Your task to perform on an android device: move an email to a new category in the gmail app Image 0: 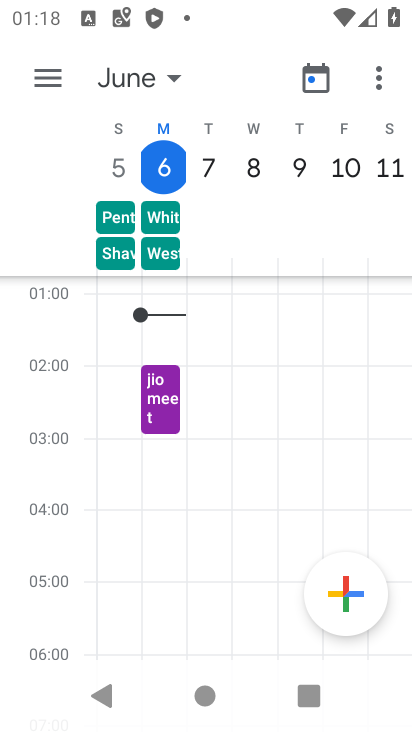
Step 0: press home button
Your task to perform on an android device: move an email to a new category in the gmail app Image 1: 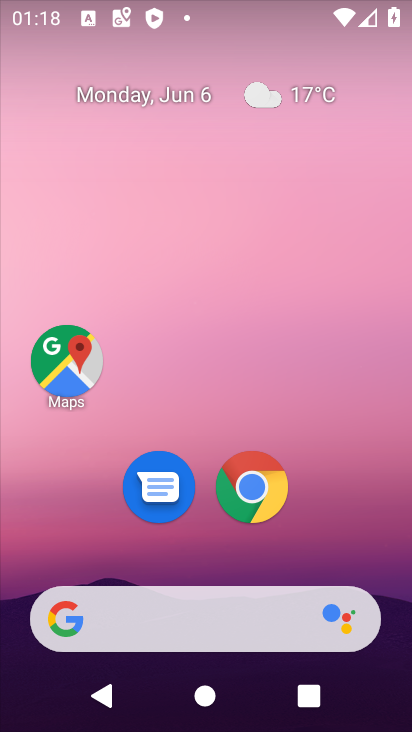
Step 1: drag from (402, 616) to (339, 64)
Your task to perform on an android device: move an email to a new category in the gmail app Image 2: 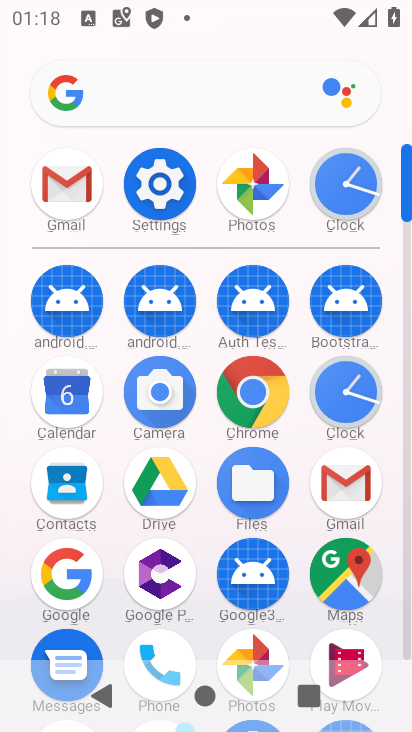
Step 2: click (407, 637)
Your task to perform on an android device: move an email to a new category in the gmail app Image 3: 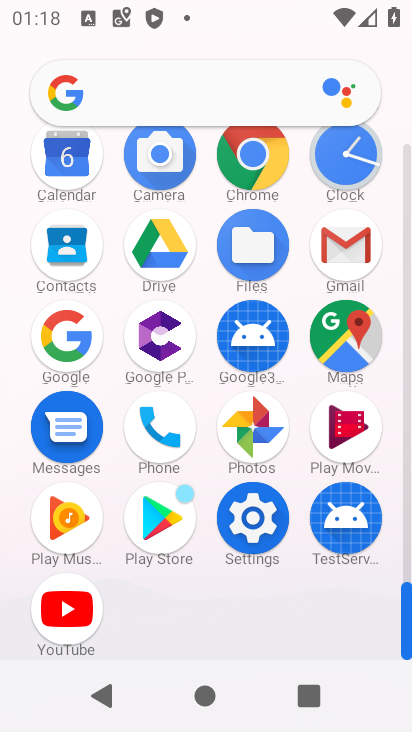
Step 3: click (343, 251)
Your task to perform on an android device: move an email to a new category in the gmail app Image 4: 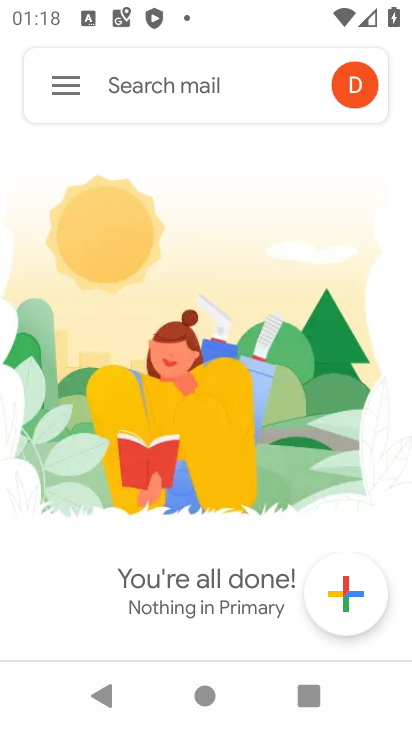
Step 4: click (64, 82)
Your task to perform on an android device: move an email to a new category in the gmail app Image 5: 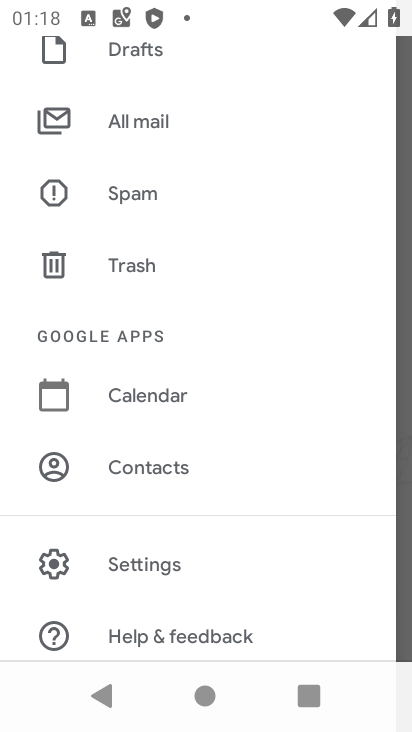
Step 5: click (161, 115)
Your task to perform on an android device: move an email to a new category in the gmail app Image 6: 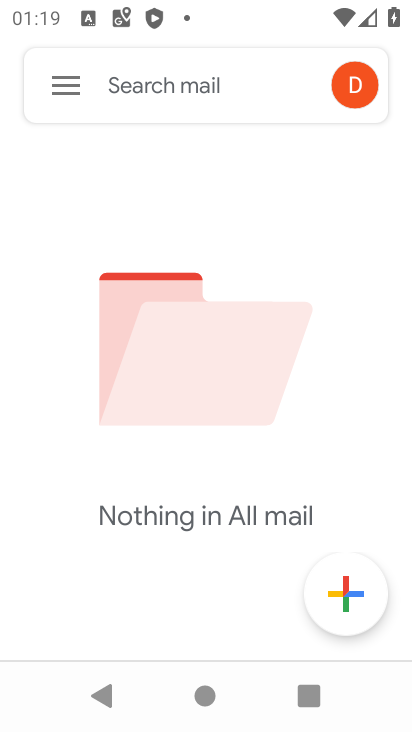
Step 6: task complete